Your task to perform on an android device: Open battery settings Image 0: 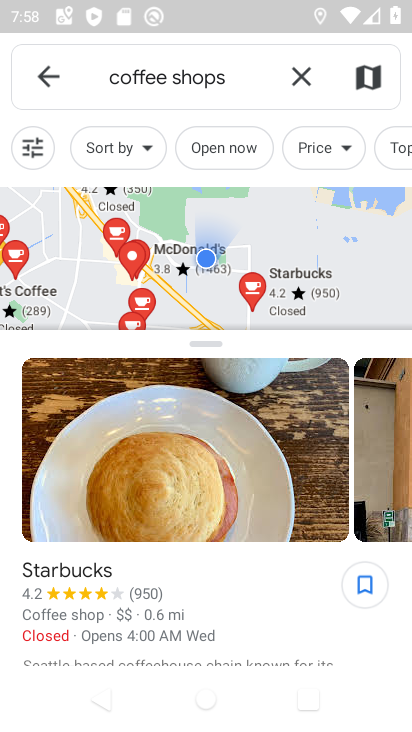
Step 0: press home button
Your task to perform on an android device: Open battery settings Image 1: 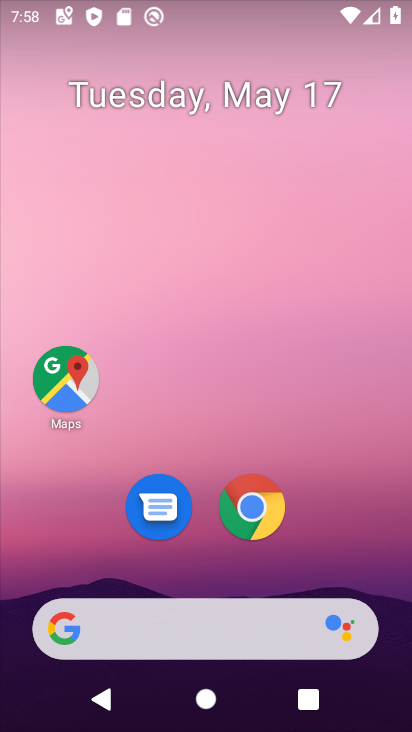
Step 1: drag from (372, 574) to (393, 11)
Your task to perform on an android device: Open battery settings Image 2: 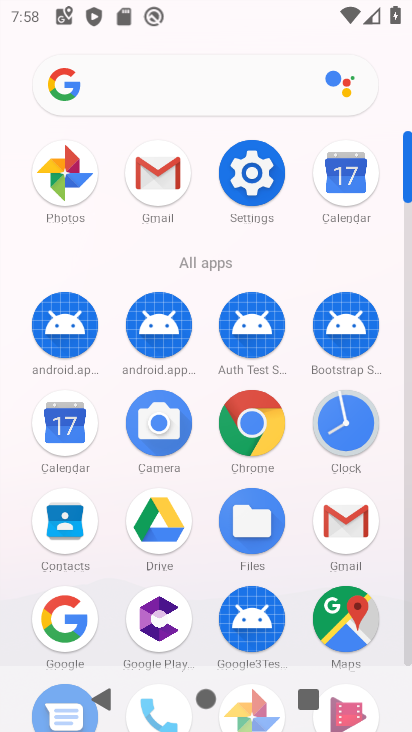
Step 2: click (259, 166)
Your task to perform on an android device: Open battery settings Image 3: 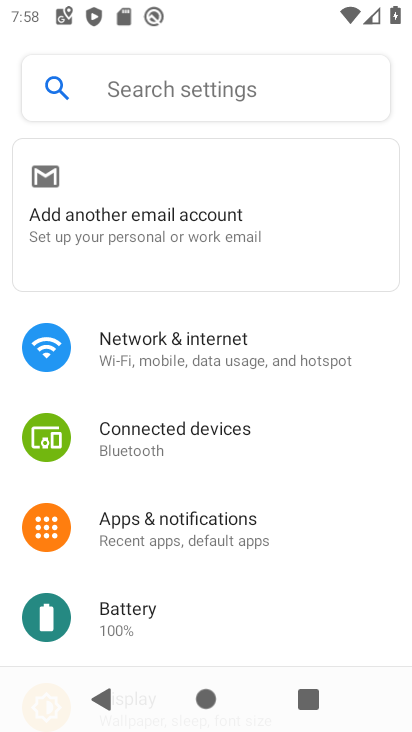
Step 3: click (127, 615)
Your task to perform on an android device: Open battery settings Image 4: 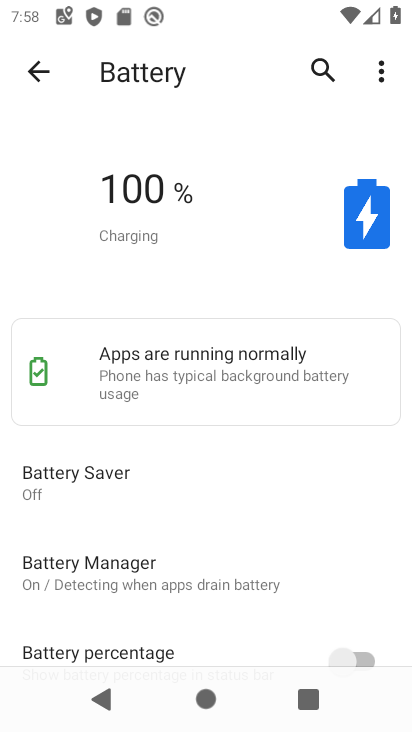
Step 4: task complete